Your task to perform on an android device: Do I have any events tomorrow? Image 0: 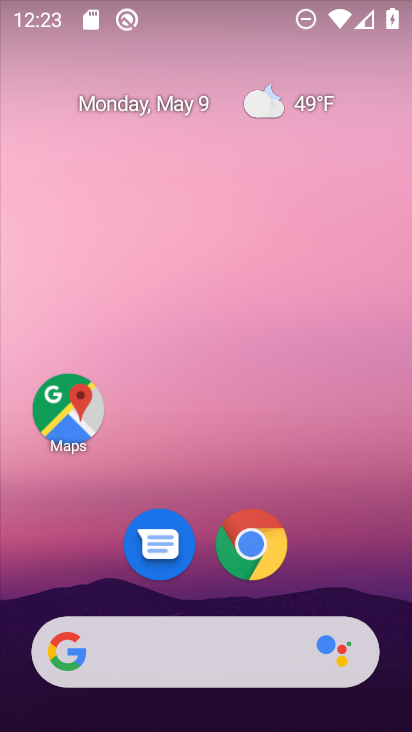
Step 0: drag from (388, 512) to (360, 184)
Your task to perform on an android device: Do I have any events tomorrow? Image 1: 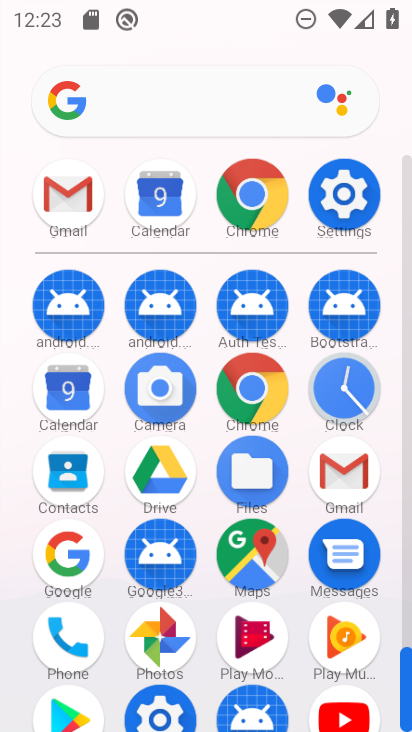
Step 1: click (63, 401)
Your task to perform on an android device: Do I have any events tomorrow? Image 2: 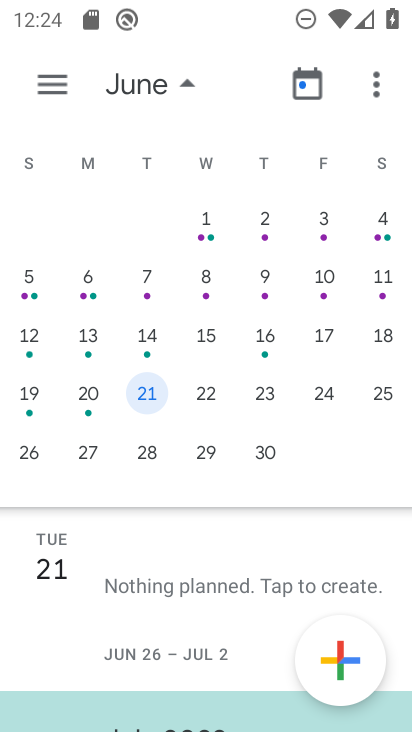
Step 2: click (202, 393)
Your task to perform on an android device: Do I have any events tomorrow? Image 3: 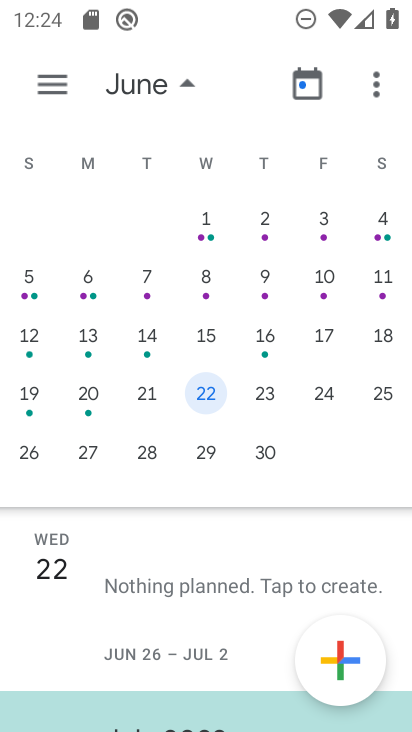
Step 3: task complete